Your task to perform on an android device: Go to network settings Image 0: 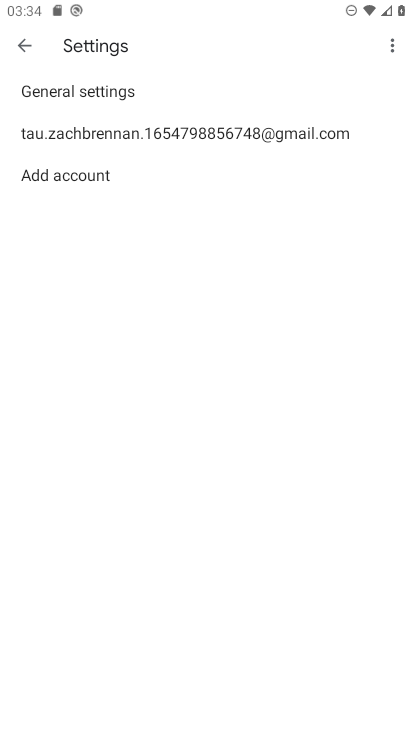
Step 0: press home button
Your task to perform on an android device: Go to network settings Image 1: 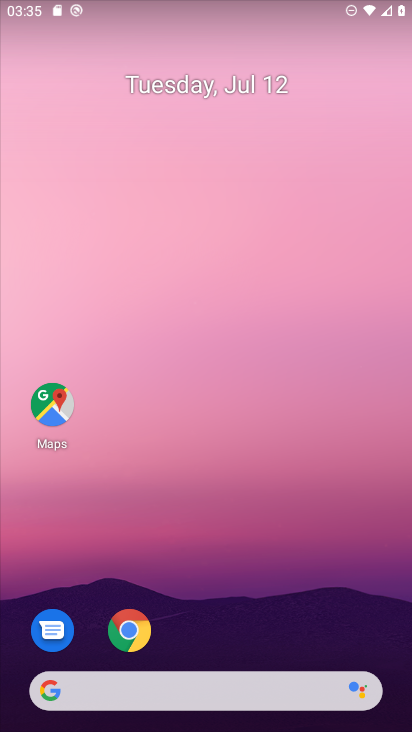
Step 1: drag from (287, 626) to (309, 106)
Your task to perform on an android device: Go to network settings Image 2: 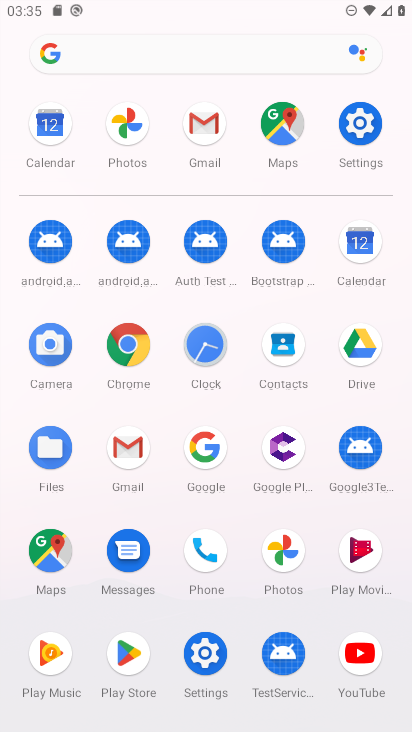
Step 2: click (203, 655)
Your task to perform on an android device: Go to network settings Image 3: 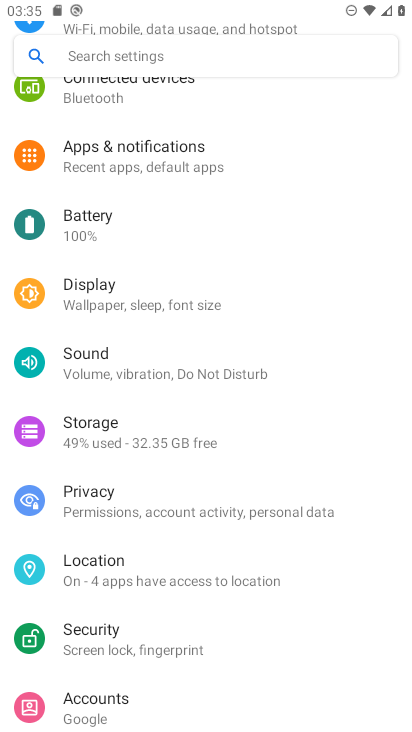
Step 3: drag from (251, 129) to (270, 226)
Your task to perform on an android device: Go to network settings Image 4: 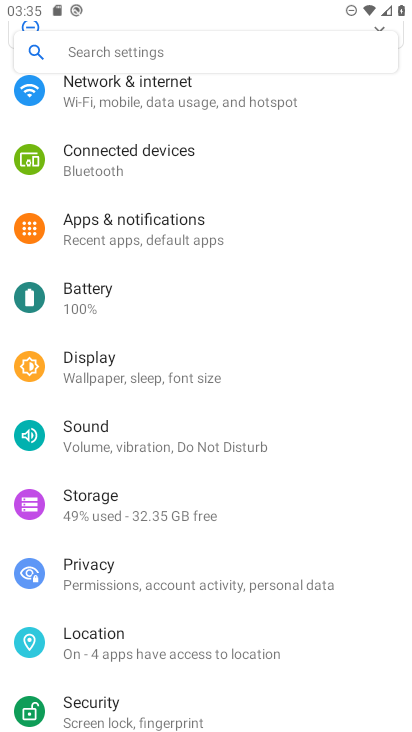
Step 4: click (131, 97)
Your task to perform on an android device: Go to network settings Image 5: 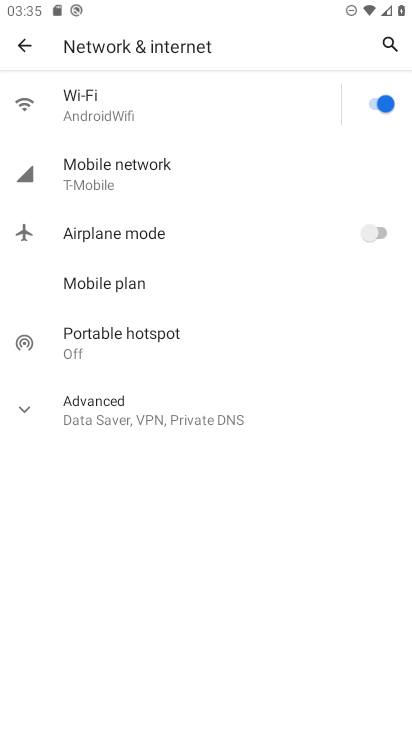
Step 5: click (135, 167)
Your task to perform on an android device: Go to network settings Image 6: 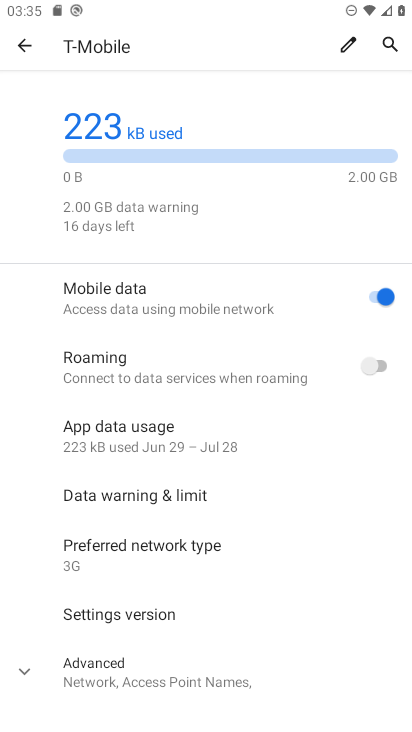
Step 6: click (29, 662)
Your task to perform on an android device: Go to network settings Image 7: 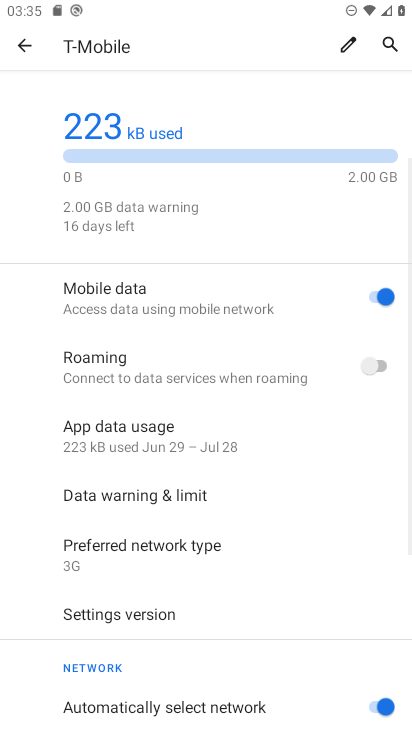
Step 7: task complete